Your task to perform on an android device: Clear the shopping cart on newegg. Search for "asus rog" on newegg, select the first entry, add it to the cart, then select checkout. Image 0: 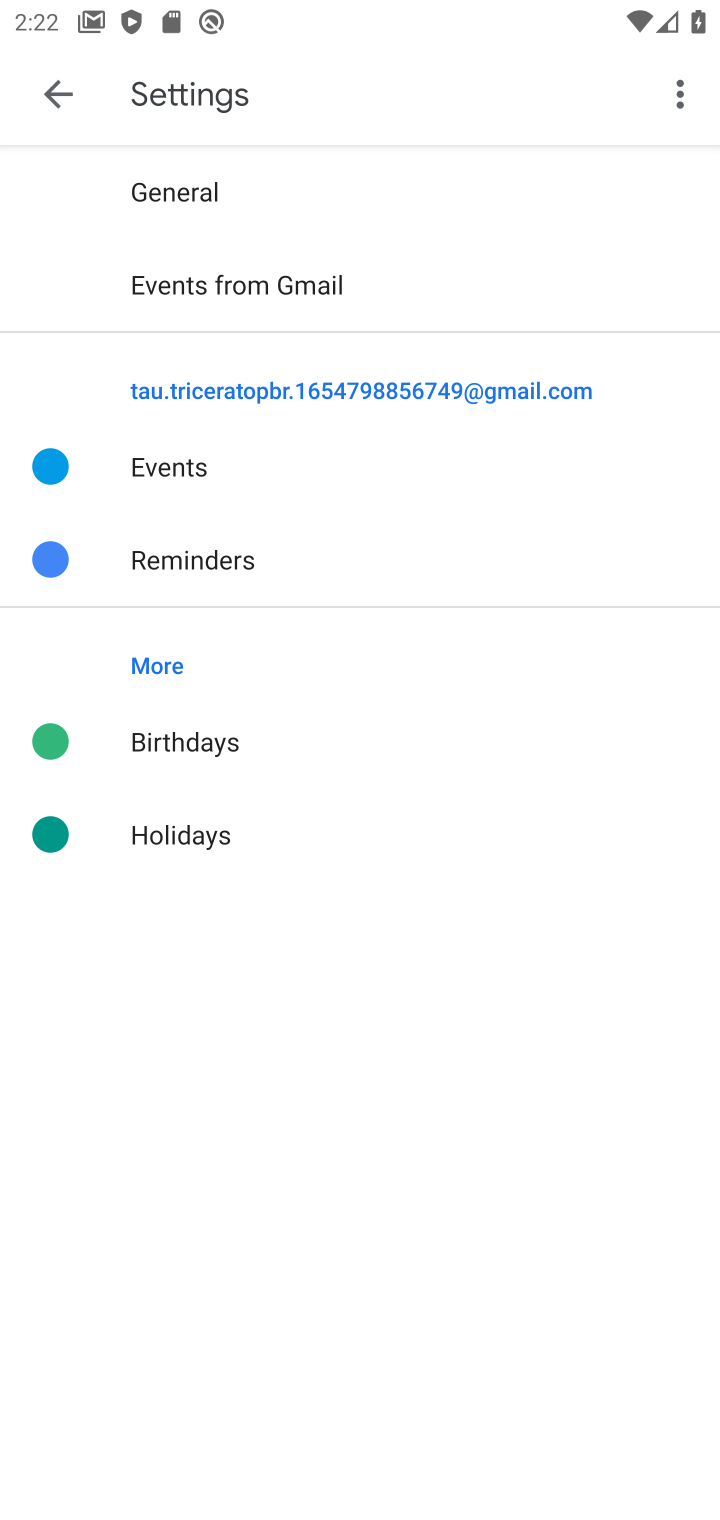
Step 0: press home button
Your task to perform on an android device: Clear the shopping cart on newegg. Search for "asus rog" on newegg, select the first entry, add it to the cart, then select checkout. Image 1: 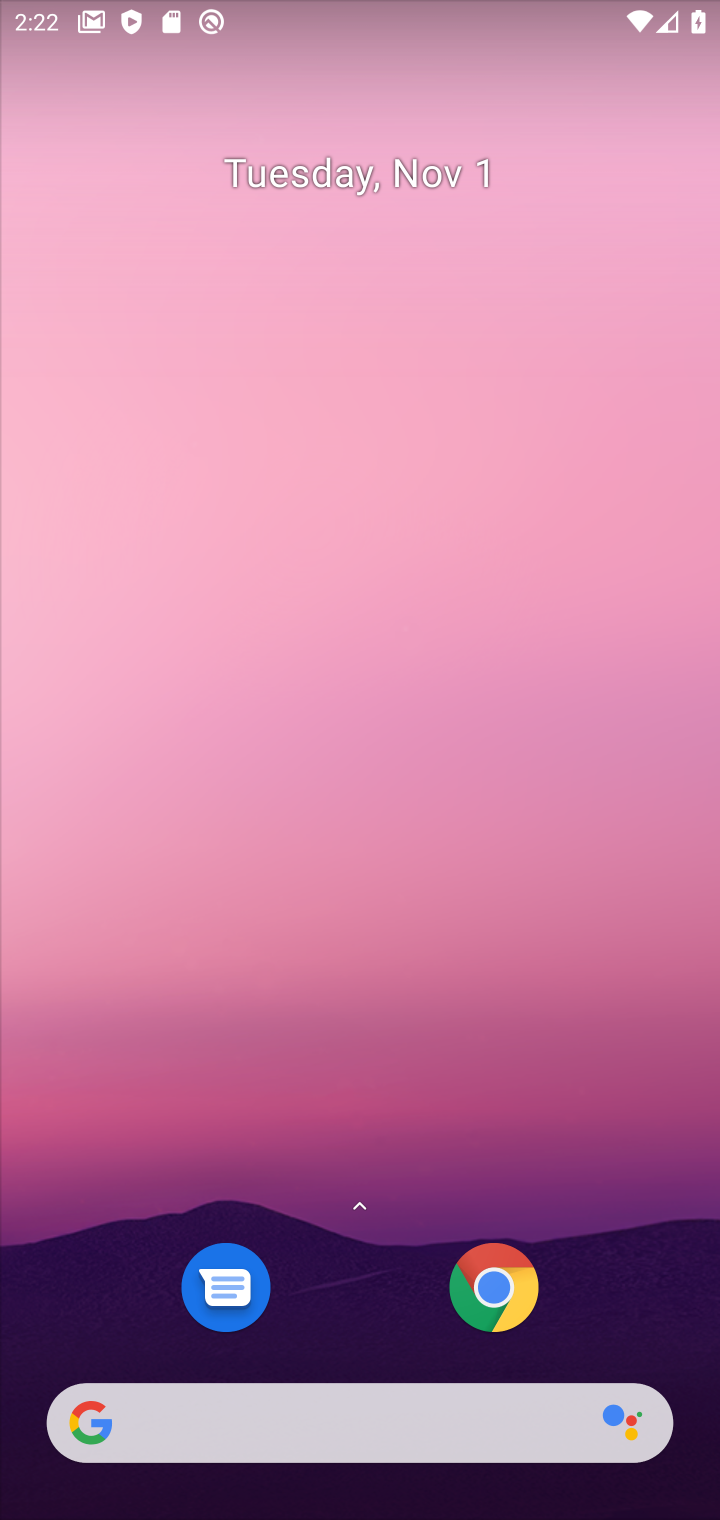
Step 1: drag from (345, 1338) to (388, 62)
Your task to perform on an android device: Clear the shopping cart on newegg. Search for "asus rog" on newegg, select the first entry, add it to the cart, then select checkout. Image 2: 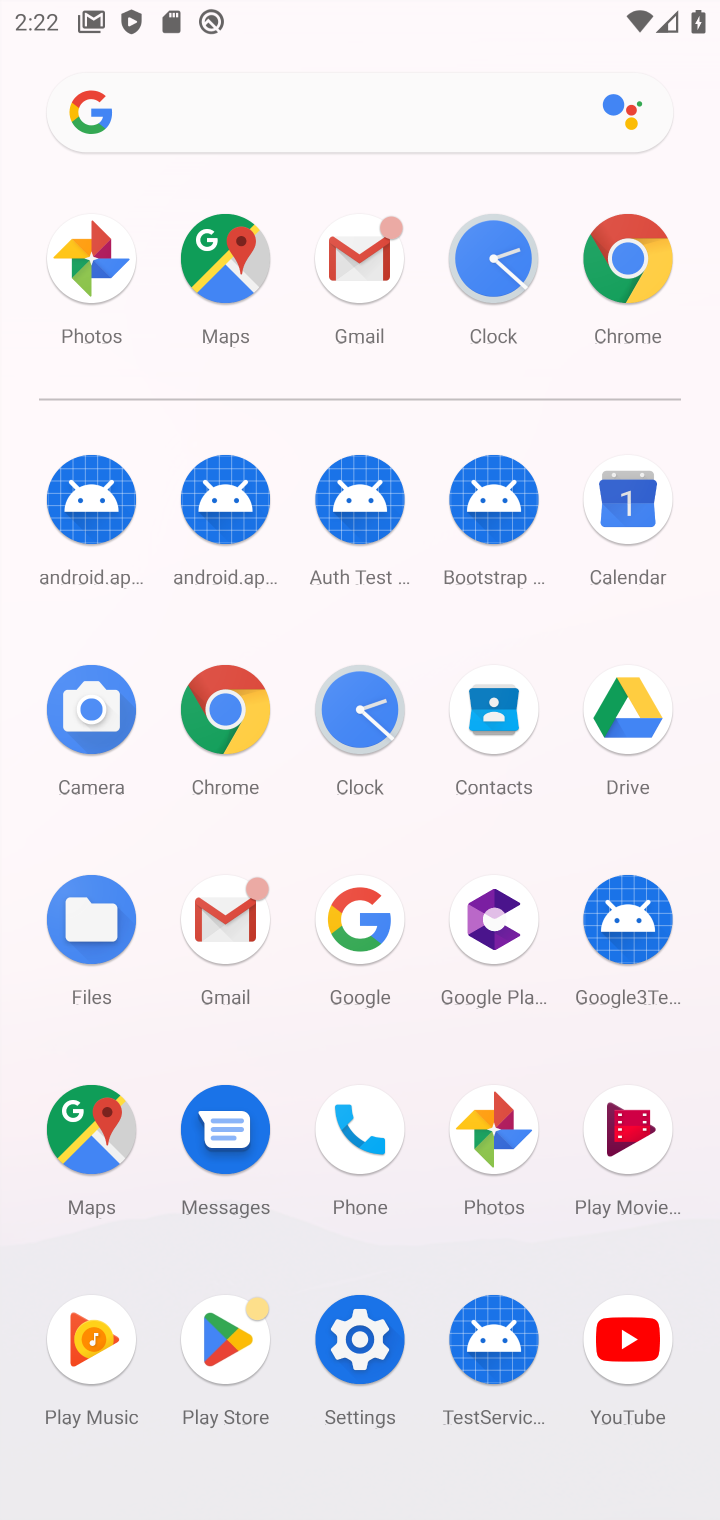
Step 2: click (219, 722)
Your task to perform on an android device: Clear the shopping cart on newegg. Search for "asus rog" on newegg, select the first entry, add it to the cart, then select checkout. Image 3: 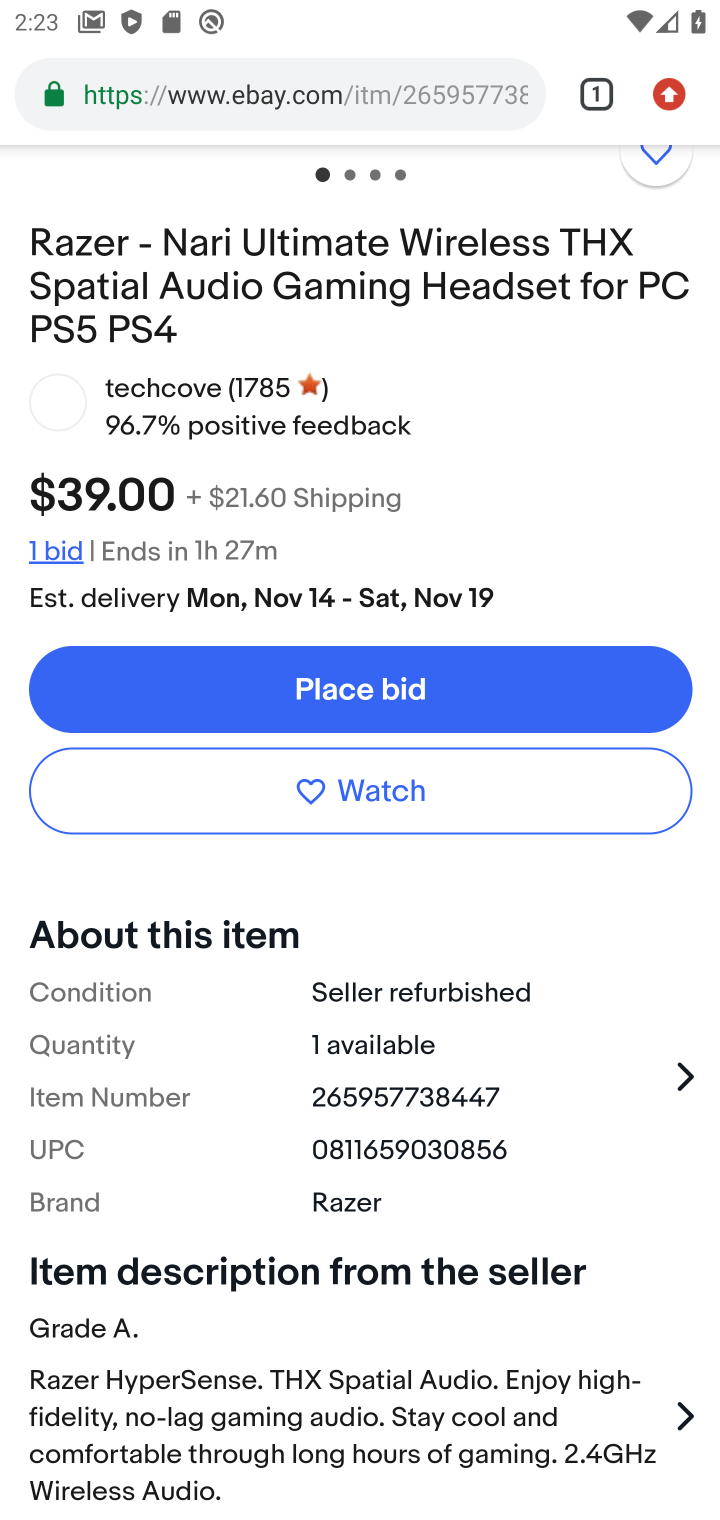
Step 3: click (432, 97)
Your task to perform on an android device: Clear the shopping cart on newegg. Search for "asus rog" on newegg, select the first entry, add it to the cart, then select checkout. Image 4: 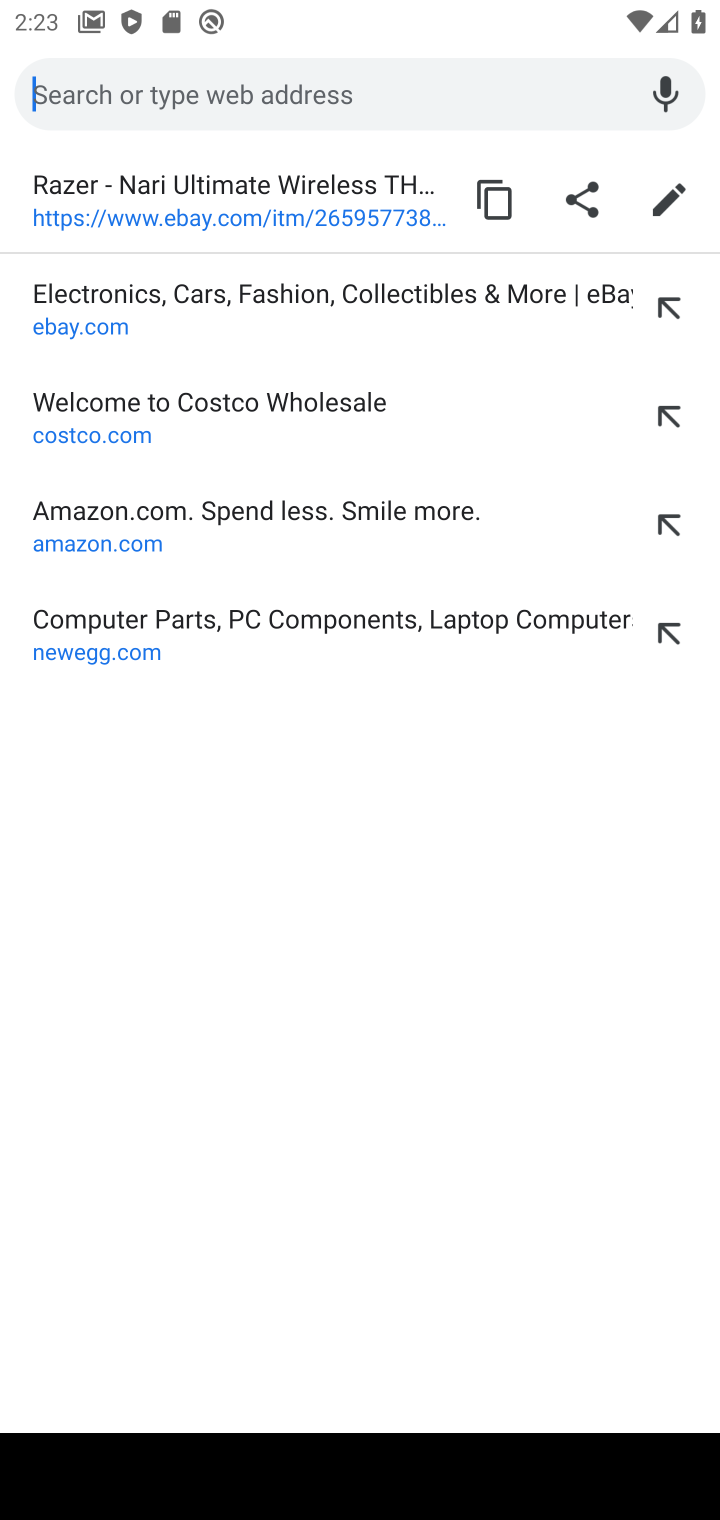
Step 4: type "newegg.com"
Your task to perform on an android device: Clear the shopping cart on newegg. Search for "asus rog" on newegg, select the first entry, add it to the cart, then select checkout. Image 5: 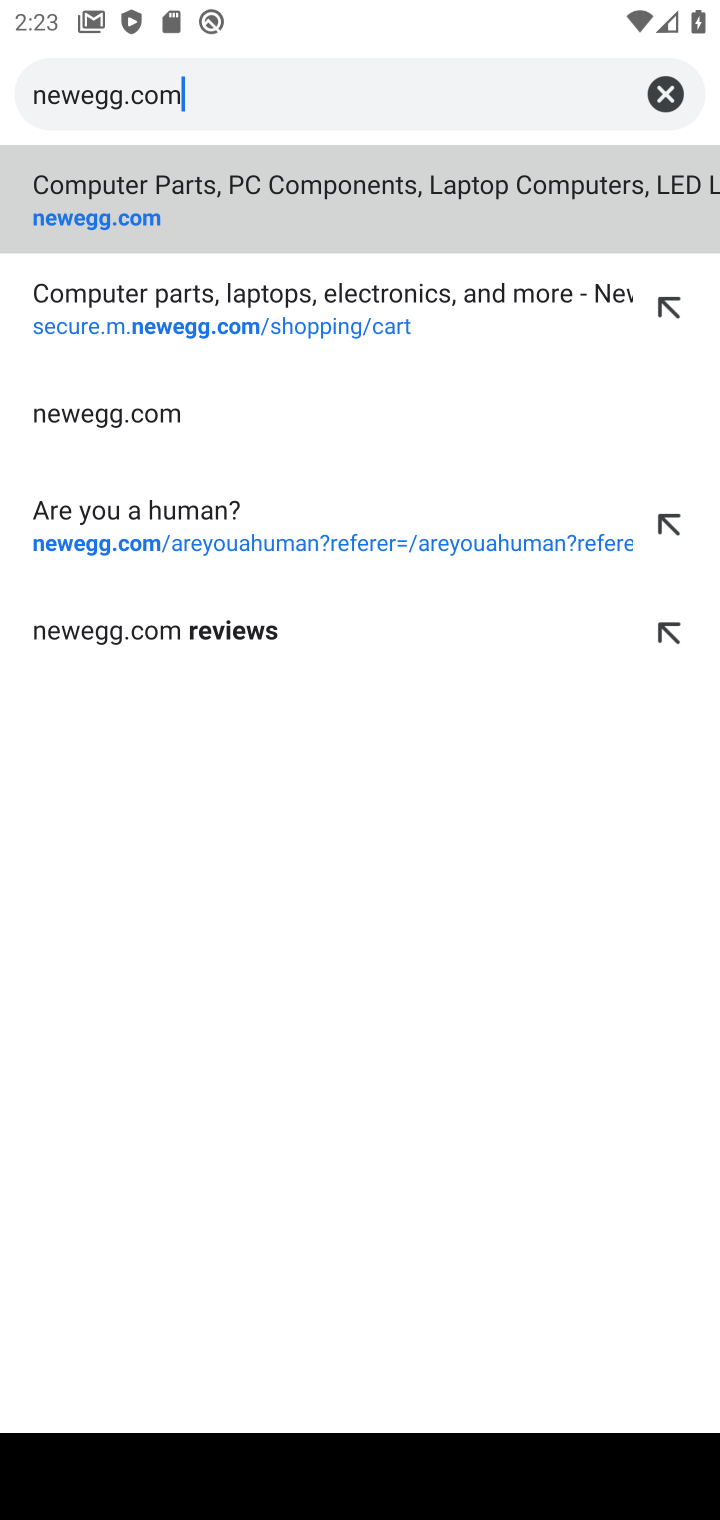
Step 5: press enter
Your task to perform on an android device: Clear the shopping cart on newegg. Search for "asus rog" on newegg, select the first entry, add it to the cart, then select checkout. Image 6: 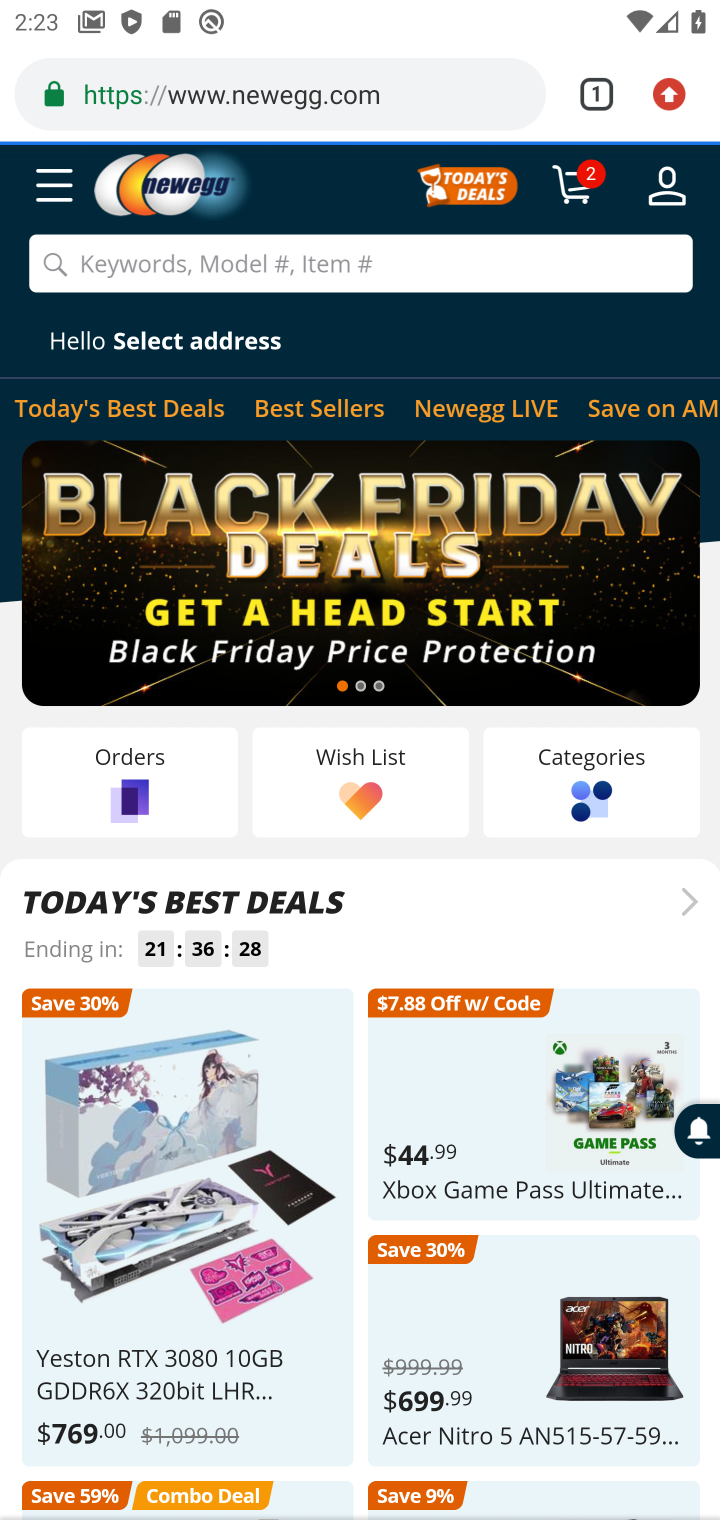
Step 6: click (481, 268)
Your task to perform on an android device: Clear the shopping cart on newegg. Search for "asus rog" on newegg, select the first entry, add it to the cart, then select checkout. Image 7: 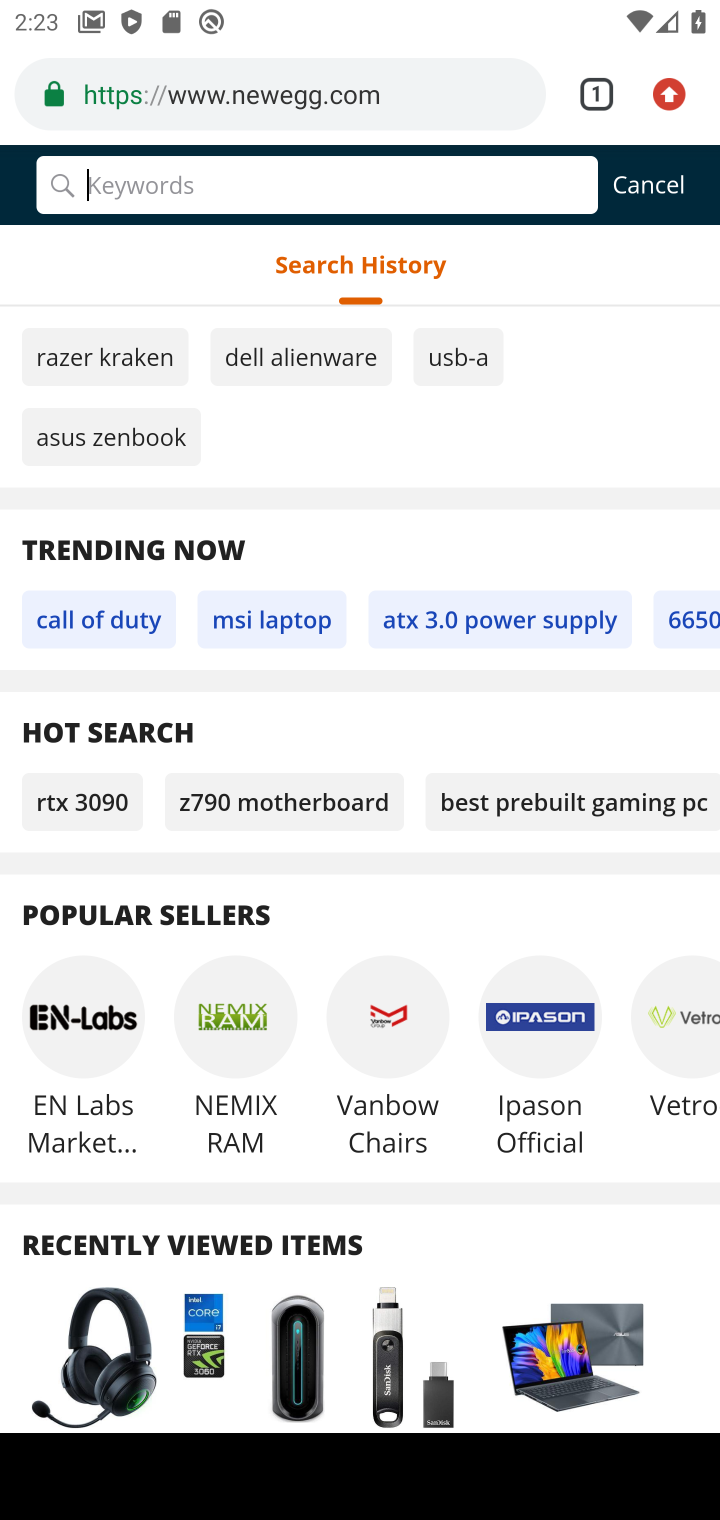
Step 7: click (672, 191)
Your task to perform on an android device: Clear the shopping cart on newegg. Search for "asus rog" on newegg, select the first entry, add it to the cart, then select checkout. Image 8: 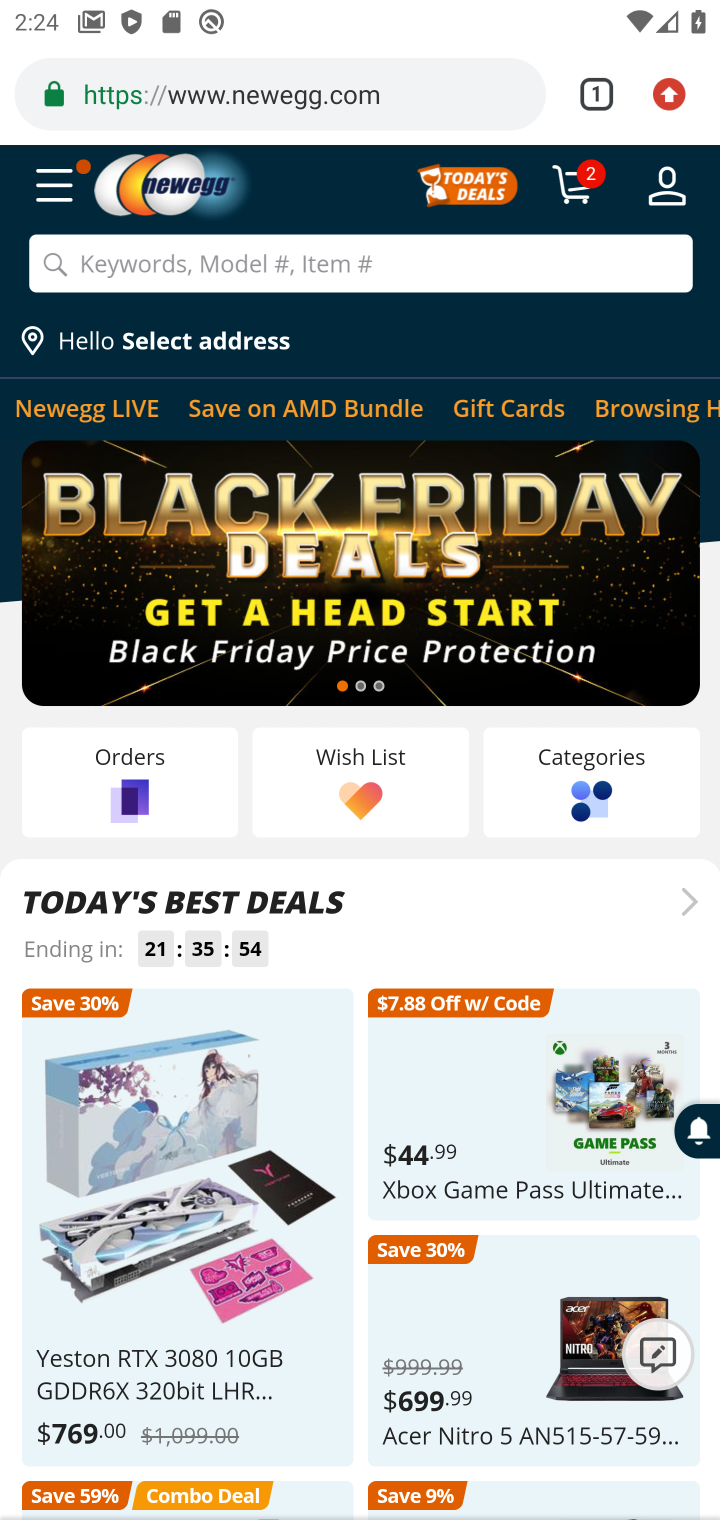
Step 8: click (590, 186)
Your task to perform on an android device: Clear the shopping cart on newegg. Search for "asus rog" on newegg, select the first entry, add it to the cart, then select checkout. Image 9: 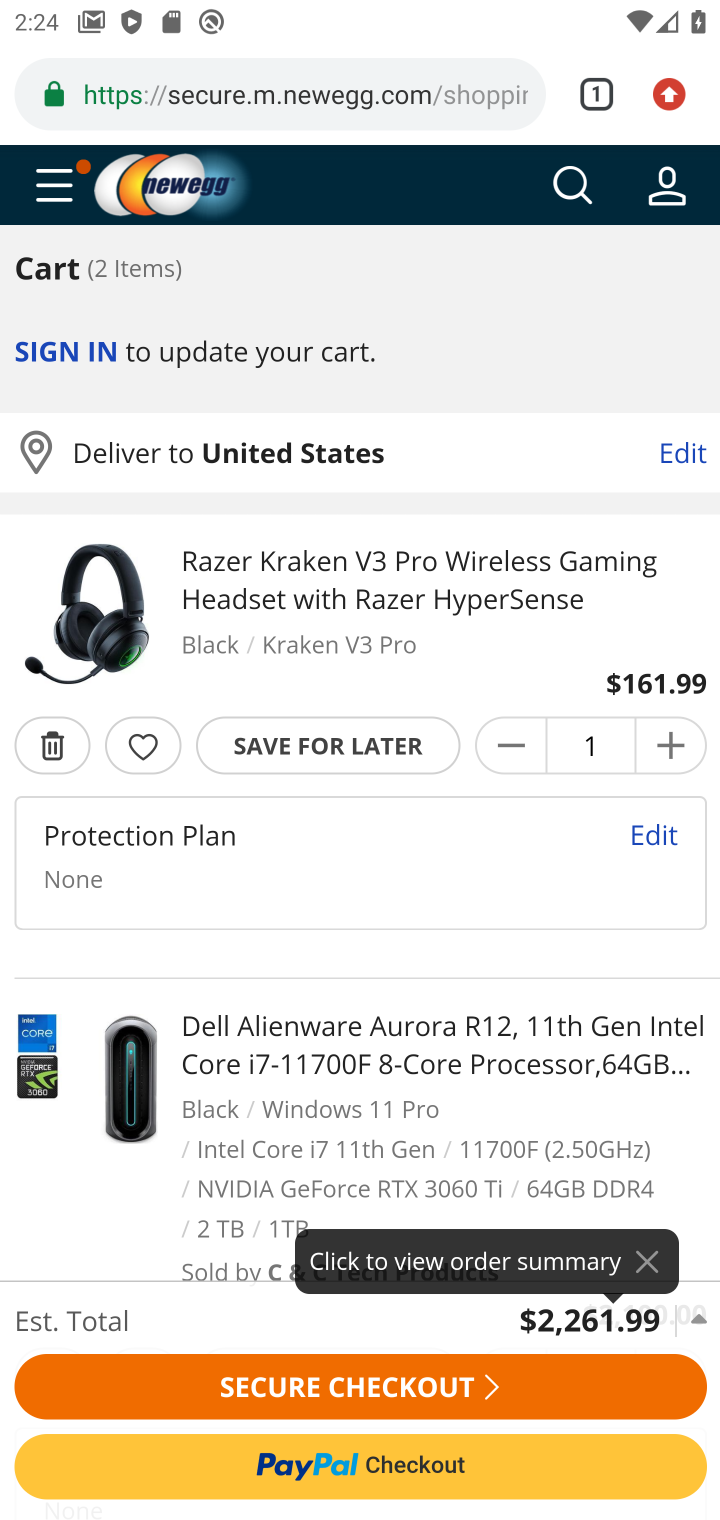
Step 9: click (49, 734)
Your task to perform on an android device: Clear the shopping cart on newegg. Search for "asus rog" on newegg, select the first entry, add it to the cart, then select checkout. Image 10: 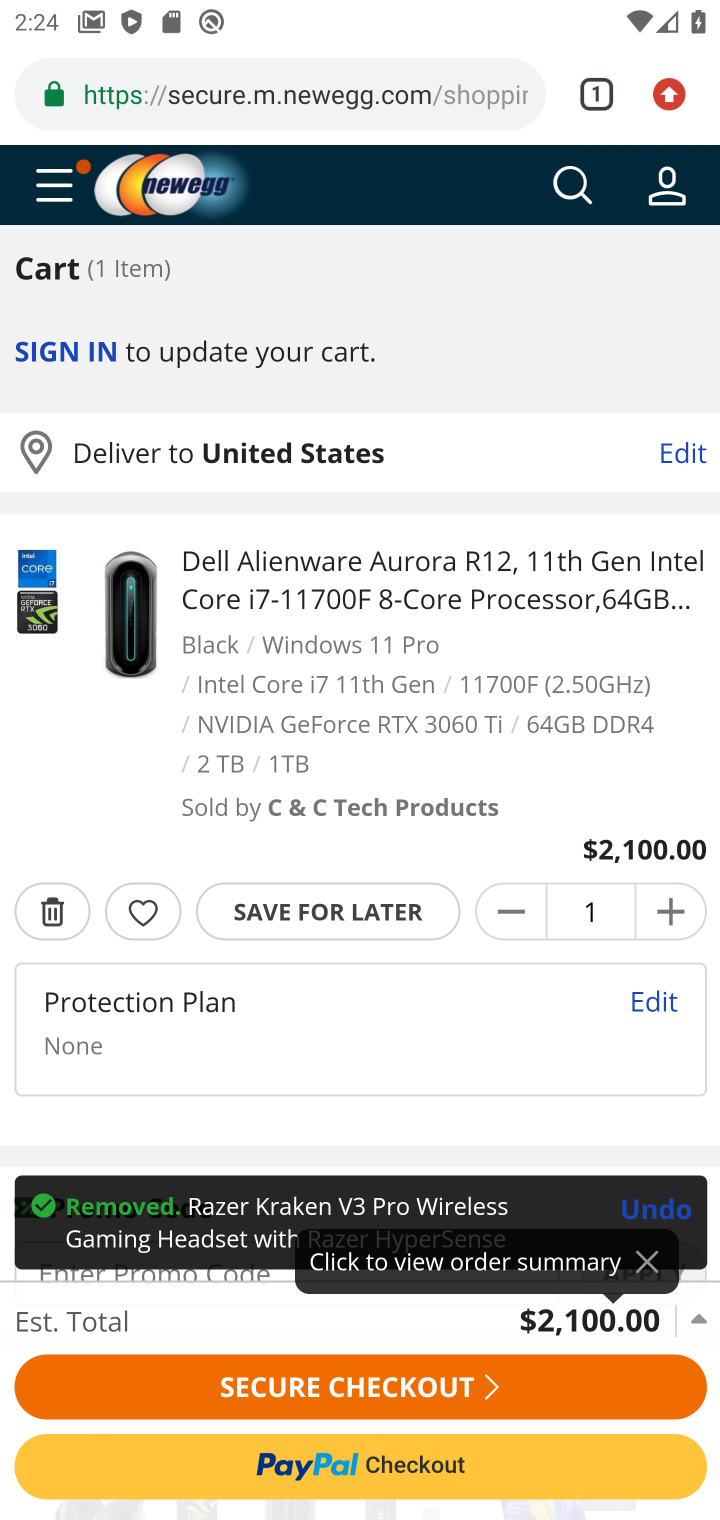
Step 10: click (30, 930)
Your task to perform on an android device: Clear the shopping cart on newegg. Search for "asus rog" on newegg, select the first entry, add it to the cart, then select checkout. Image 11: 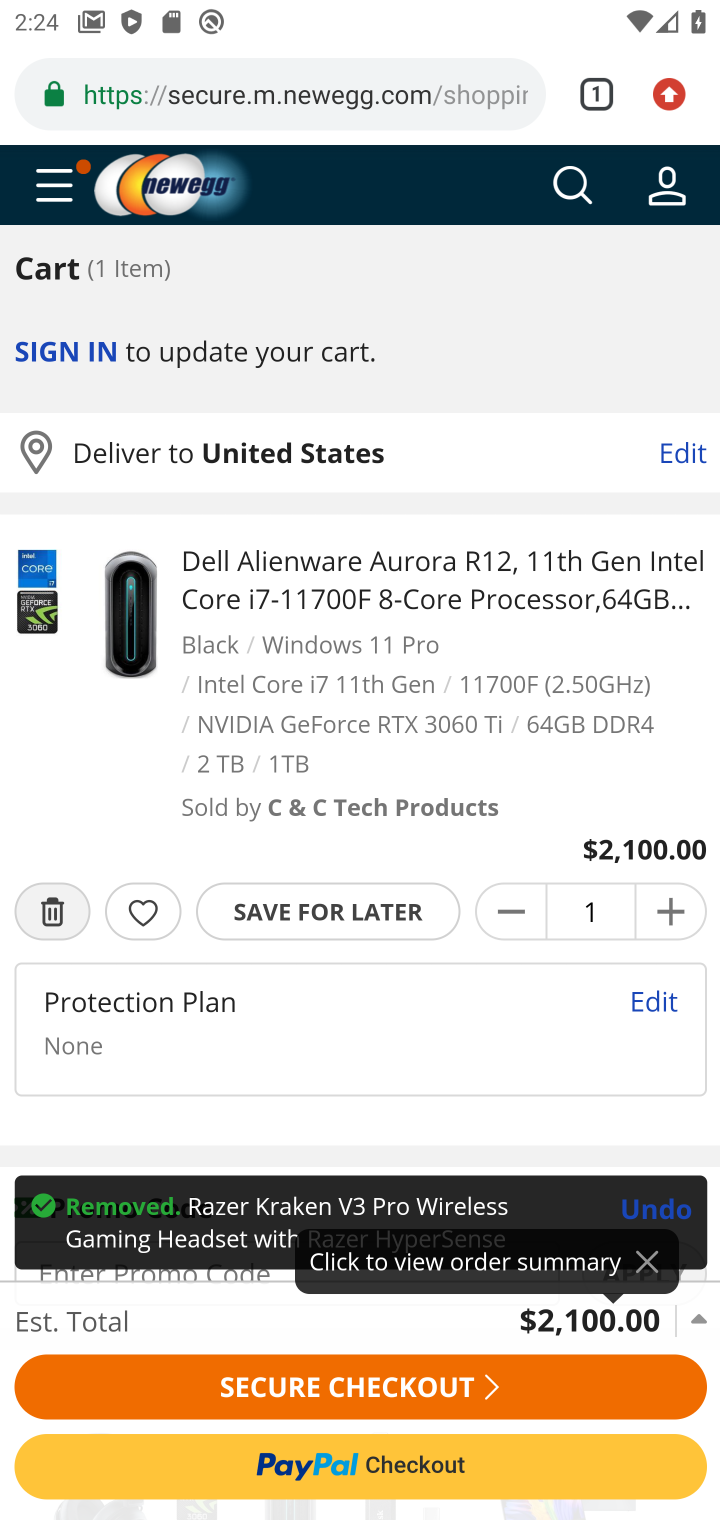
Step 11: click (58, 907)
Your task to perform on an android device: Clear the shopping cart on newegg. Search for "asus rog" on newegg, select the first entry, add it to the cart, then select checkout. Image 12: 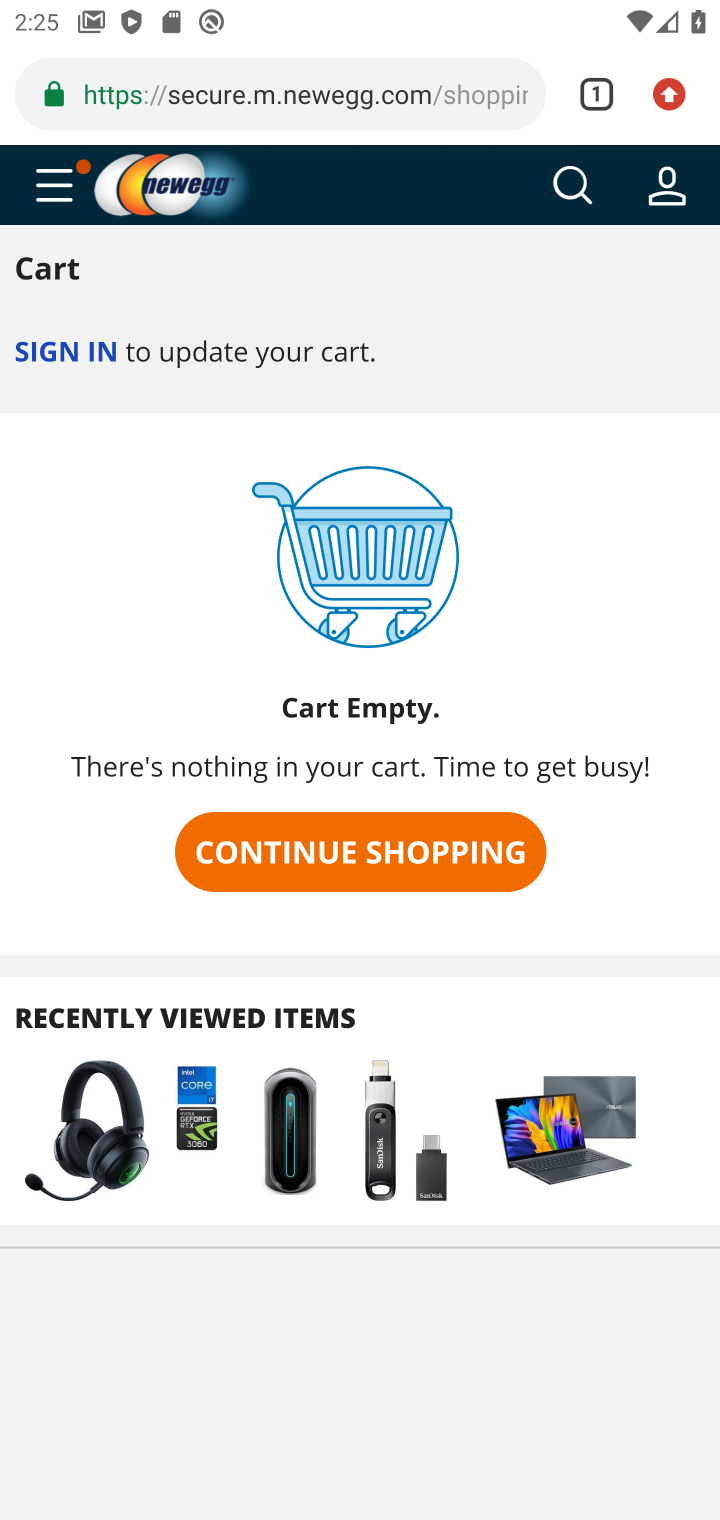
Step 12: click (570, 188)
Your task to perform on an android device: Clear the shopping cart on newegg. Search for "asus rog" on newegg, select the first entry, add it to the cart, then select checkout. Image 13: 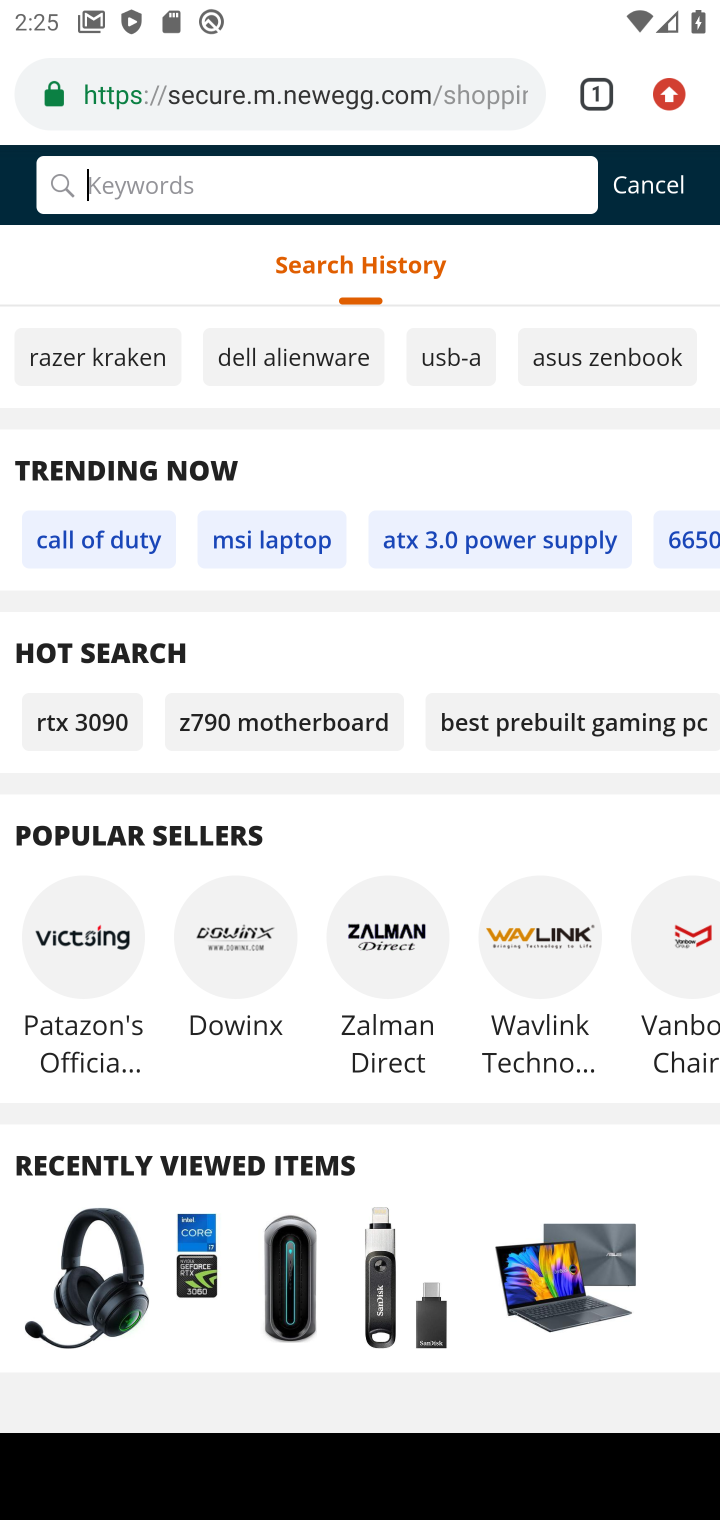
Step 13: type "asus rog"
Your task to perform on an android device: Clear the shopping cart on newegg. Search for "asus rog" on newegg, select the first entry, add it to the cart, then select checkout. Image 14: 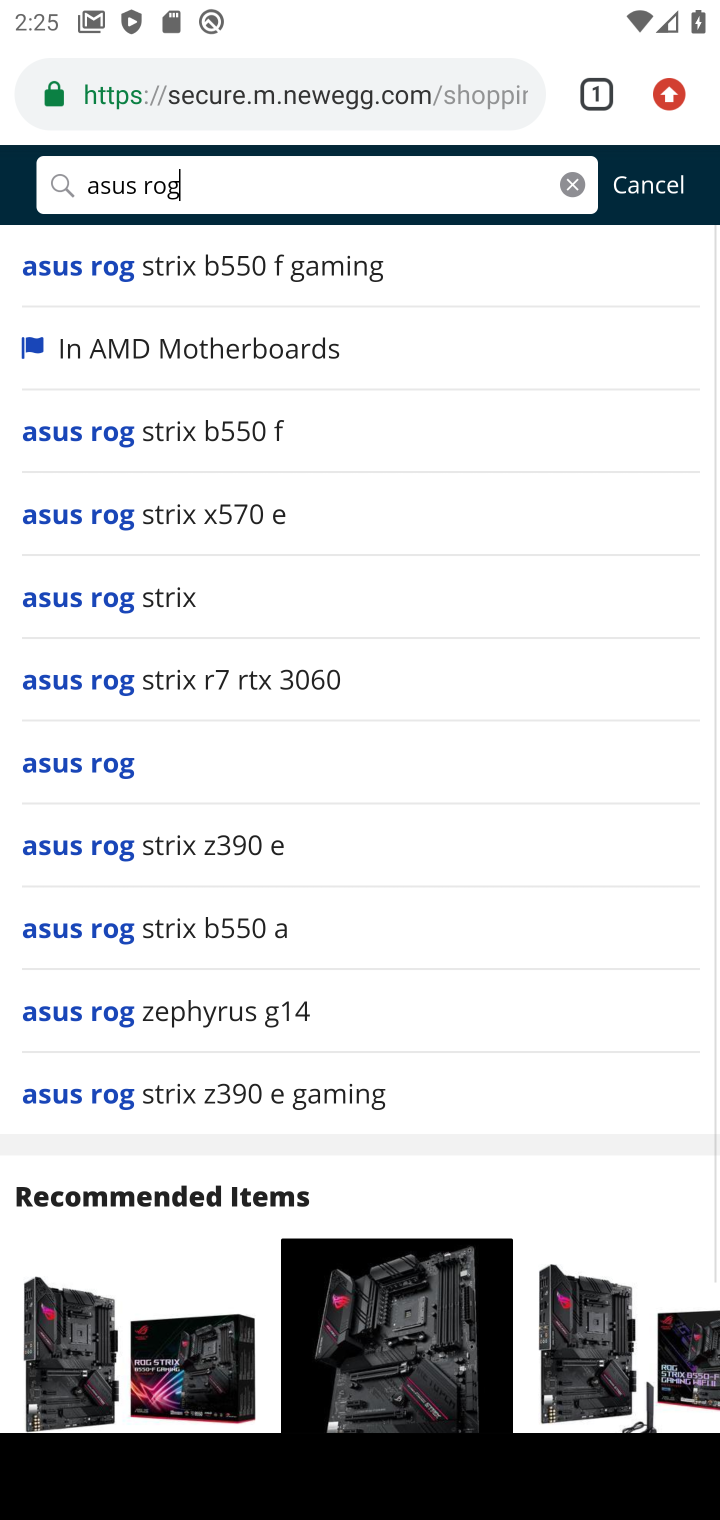
Step 14: press enter
Your task to perform on an android device: Clear the shopping cart on newegg. Search for "asus rog" on newegg, select the first entry, add it to the cart, then select checkout. Image 15: 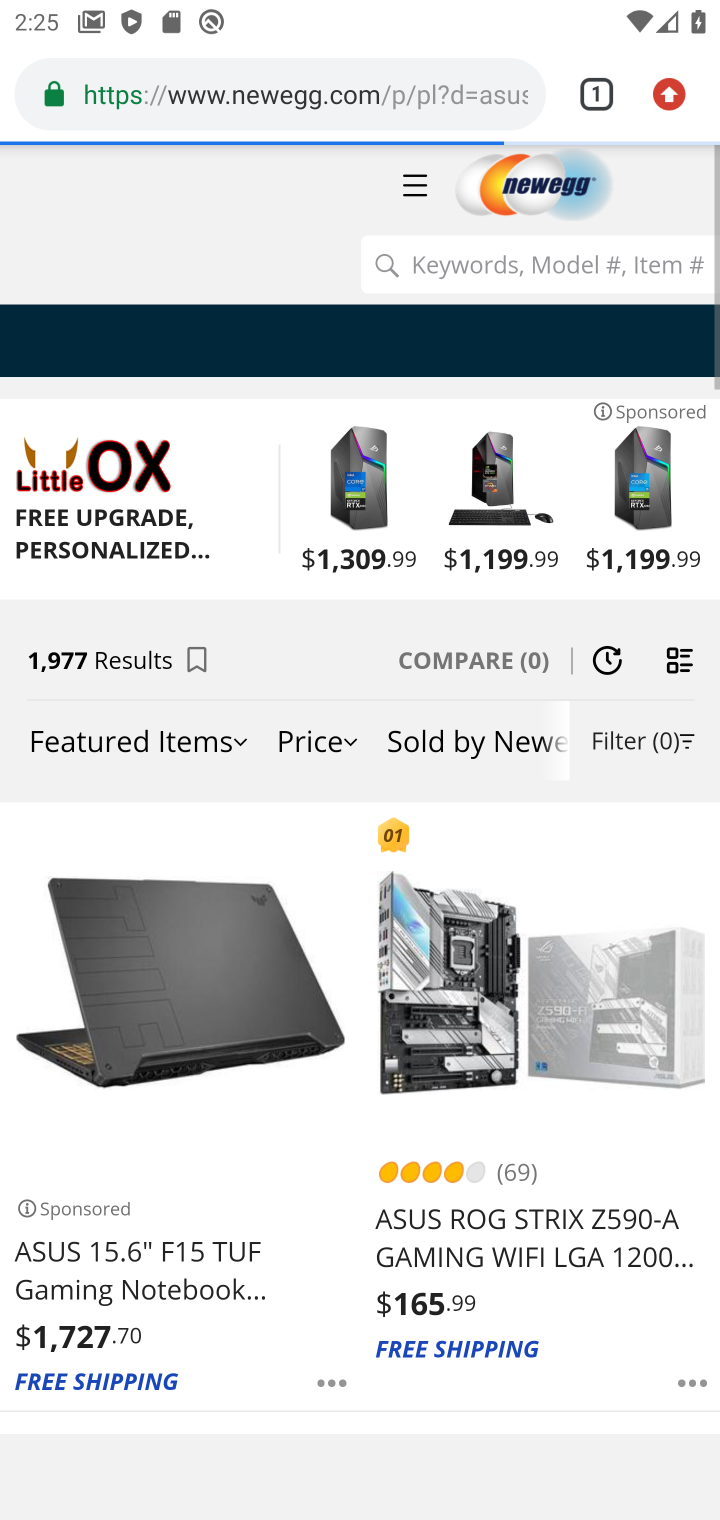
Step 15: drag from (421, 1225) to (592, 476)
Your task to perform on an android device: Clear the shopping cart on newegg. Search for "asus rog" on newegg, select the first entry, add it to the cart, then select checkout. Image 16: 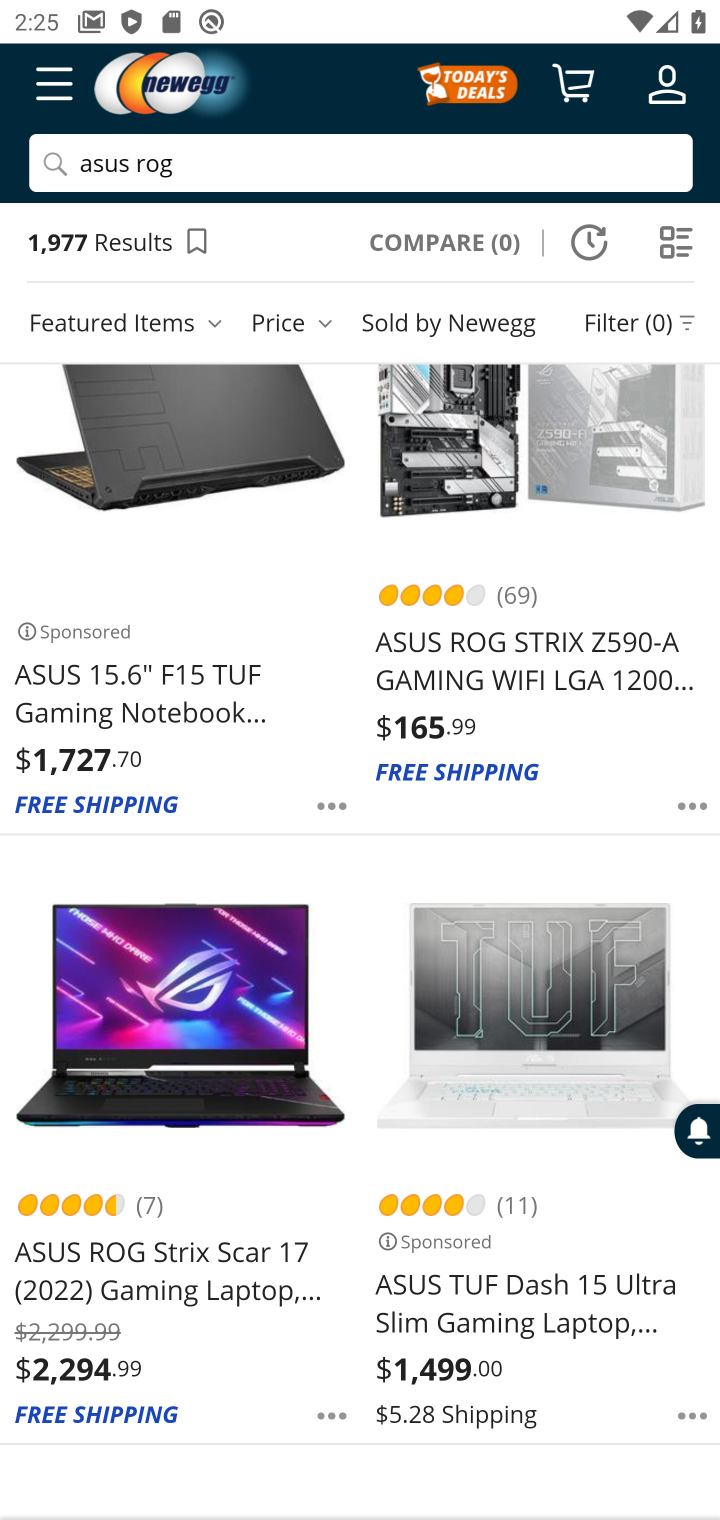
Step 16: click (528, 630)
Your task to perform on an android device: Clear the shopping cart on newegg. Search for "asus rog" on newegg, select the first entry, add it to the cart, then select checkout. Image 17: 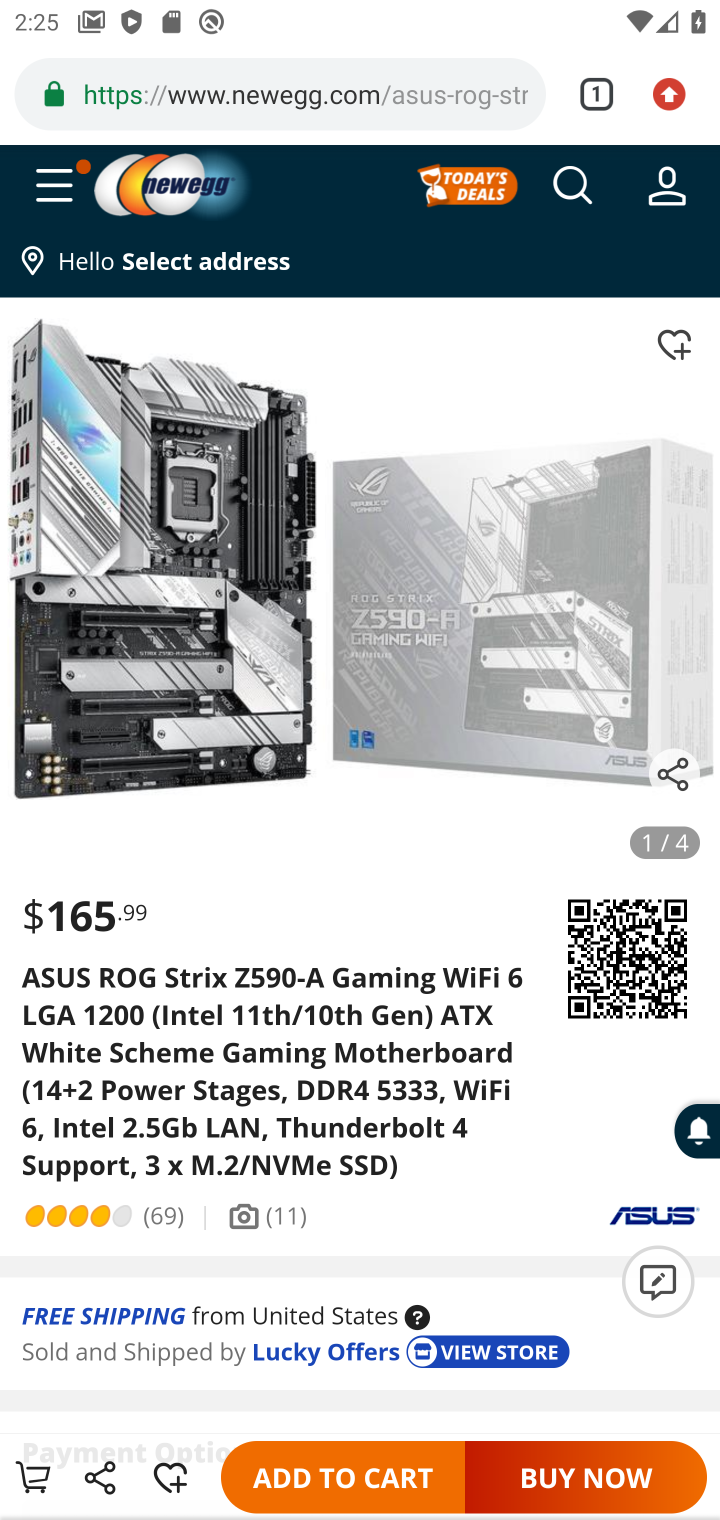
Step 17: click (382, 1470)
Your task to perform on an android device: Clear the shopping cart on newegg. Search for "asus rog" on newegg, select the first entry, add it to the cart, then select checkout. Image 18: 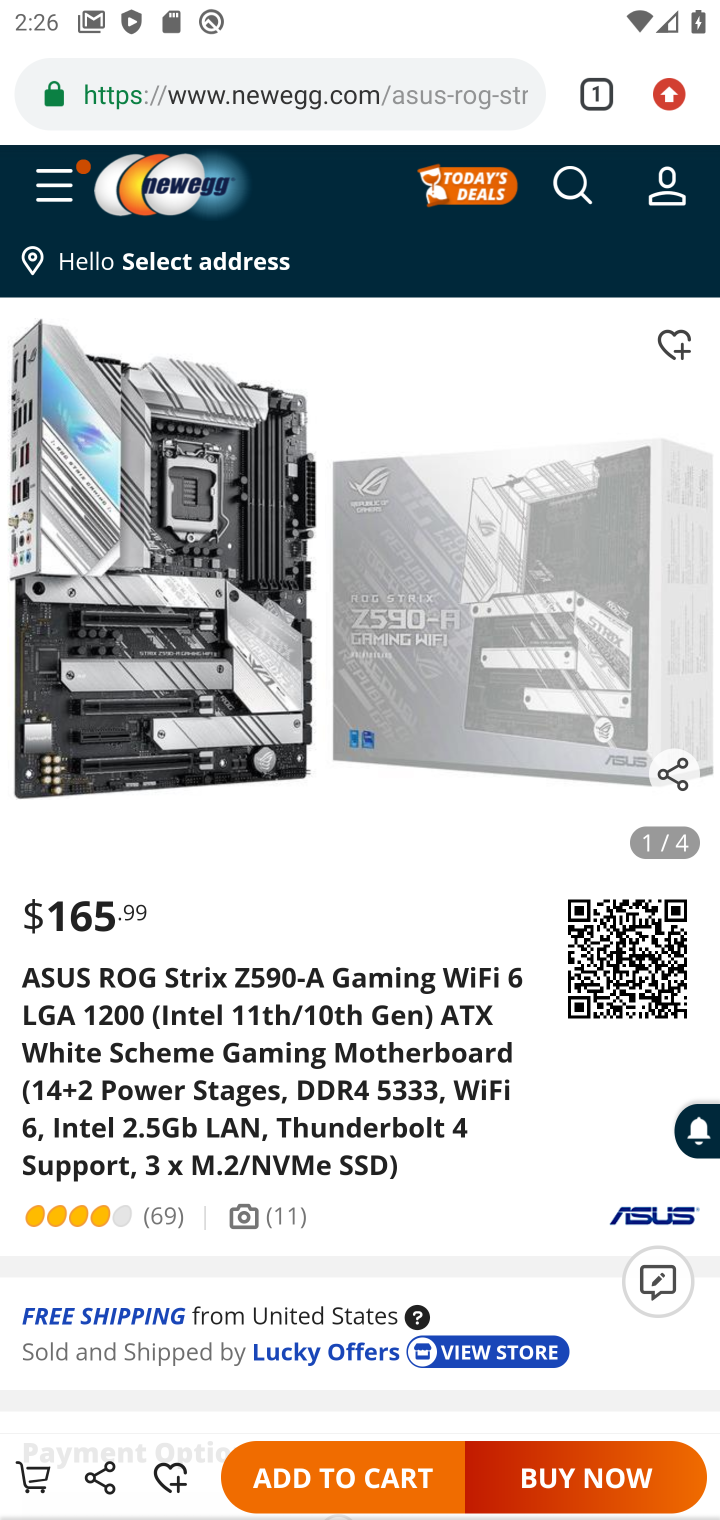
Step 18: click (317, 1488)
Your task to perform on an android device: Clear the shopping cart on newegg. Search for "asus rog" on newegg, select the first entry, add it to the cart, then select checkout. Image 19: 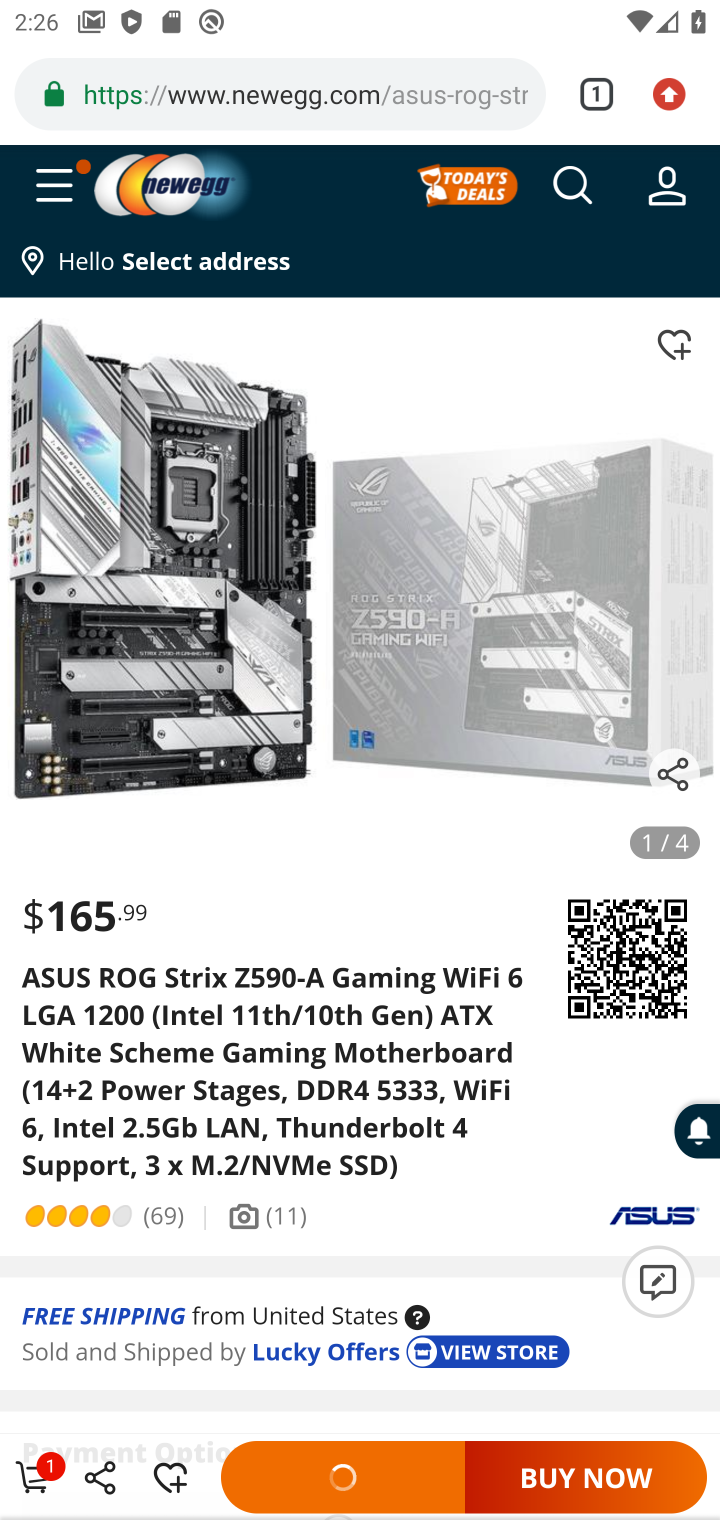
Step 19: click (32, 1444)
Your task to perform on an android device: Clear the shopping cart on newegg. Search for "asus rog" on newegg, select the first entry, add it to the cart, then select checkout. Image 20: 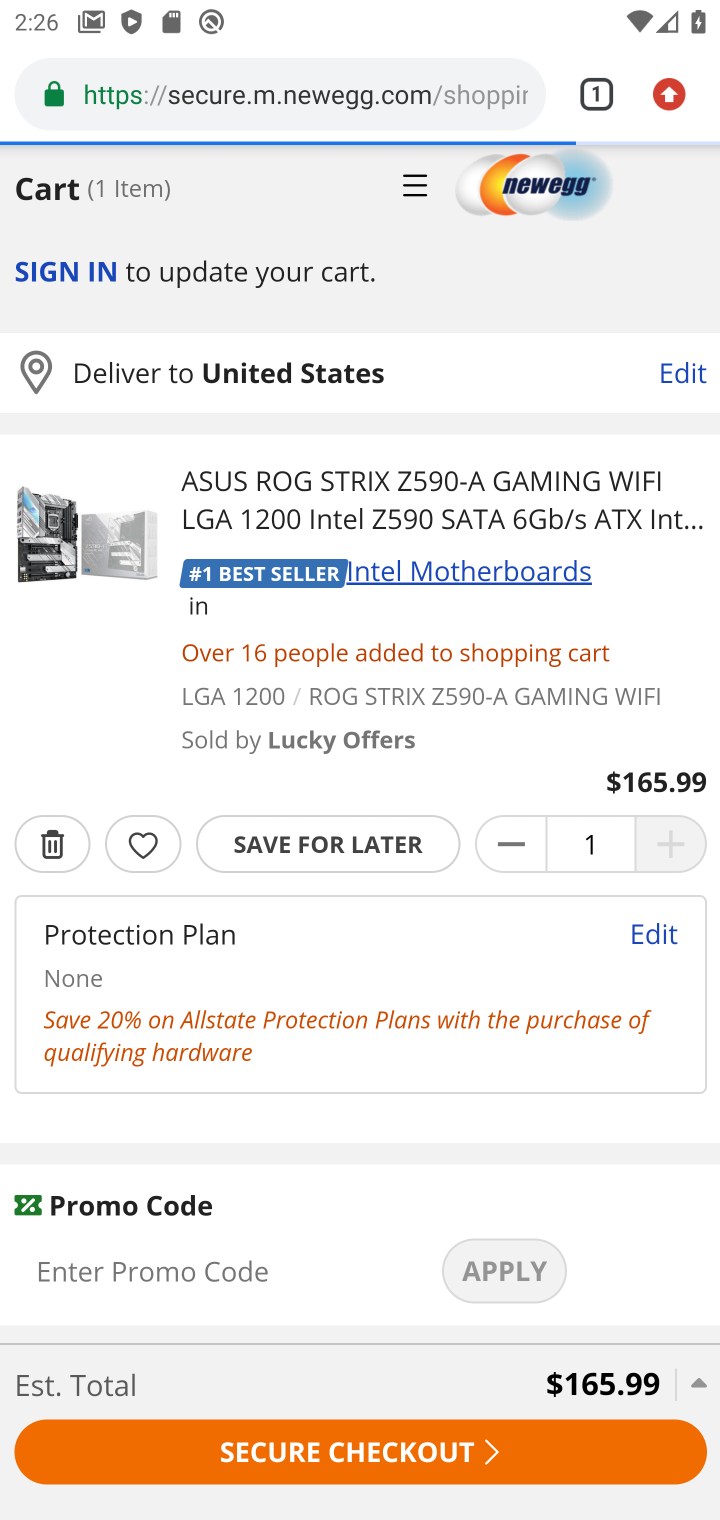
Step 20: click (246, 1465)
Your task to perform on an android device: Clear the shopping cart on newegg. Search for "asus rog" on newegg, select the first entry, add it to the cart, then select checkout. Image 21: 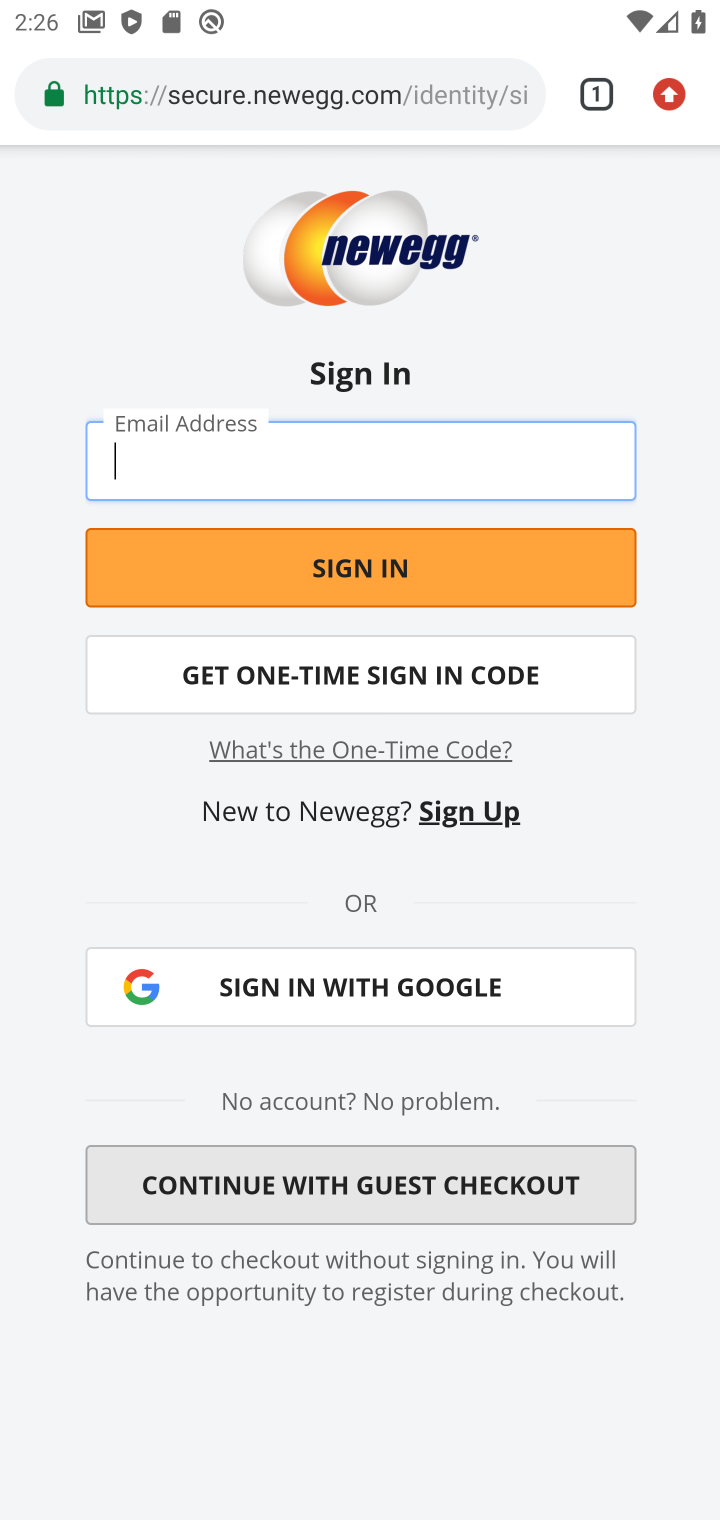
Step 21: task complete